Your task to perform on an android device: toggle sleep mode Image 0: 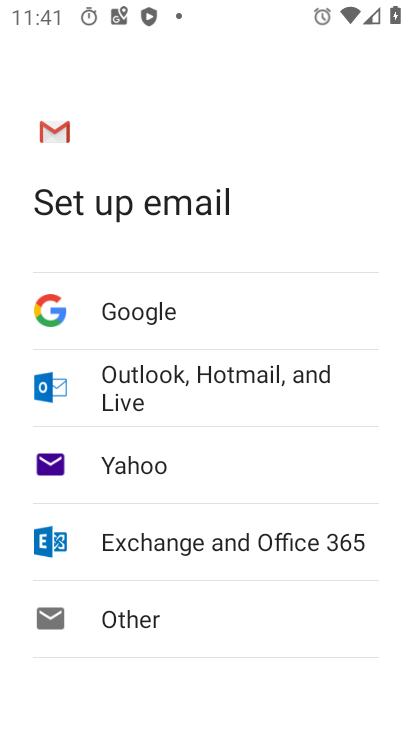
Step 0: press home button
Your task to perform on an android device: toggle sleep mode Image 1: 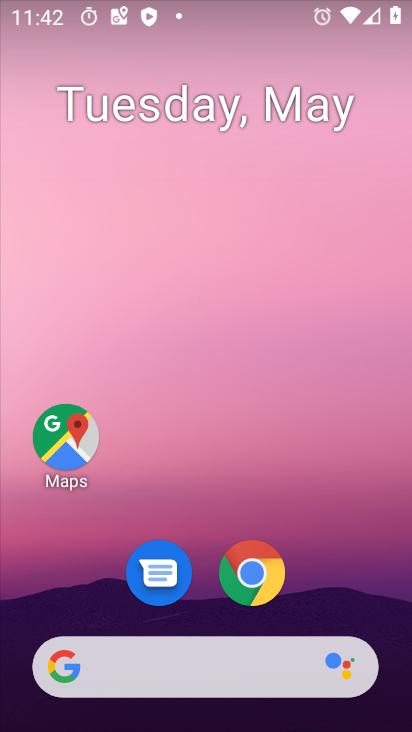
Step 1: drag from (236, 697) to (288, 254)
Your task to perform on an android device: toggle sleep mode Image 2: 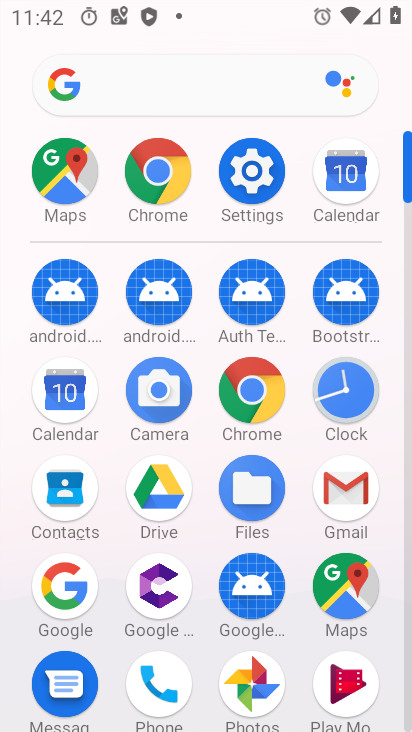
Step 2: click (241, 198)
Your task to perform on an android device: toggle sleep mode Image 3: 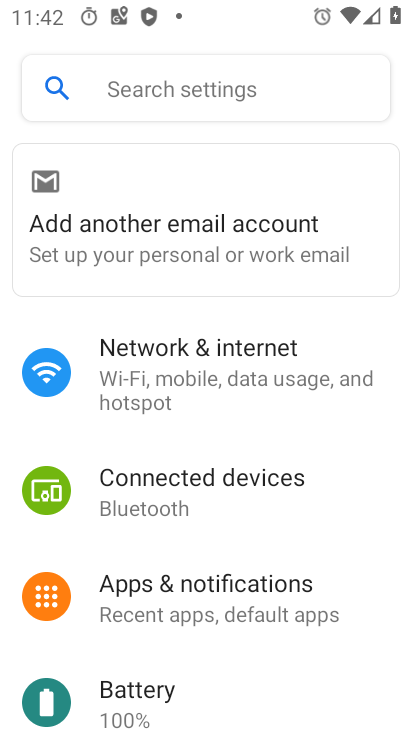
Step 3: click (161, 89)
Your task to perform on an android device: toggle sleep mode Image 4: 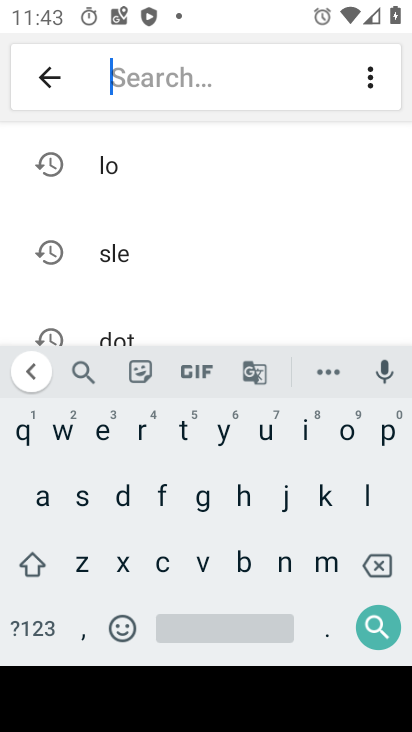
Step 4: click (73, 495)
Your task to perform on an android device: toggle sleep mode Image 5: 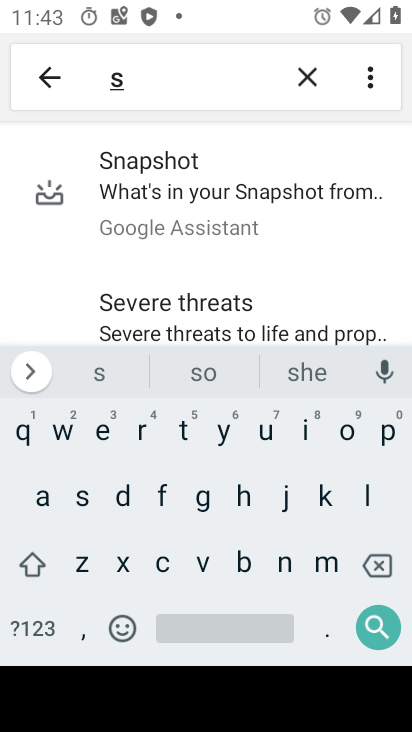
Step 5: click (365, 496)
Your task to perform on an android device: toggle sleep mode Image 6: 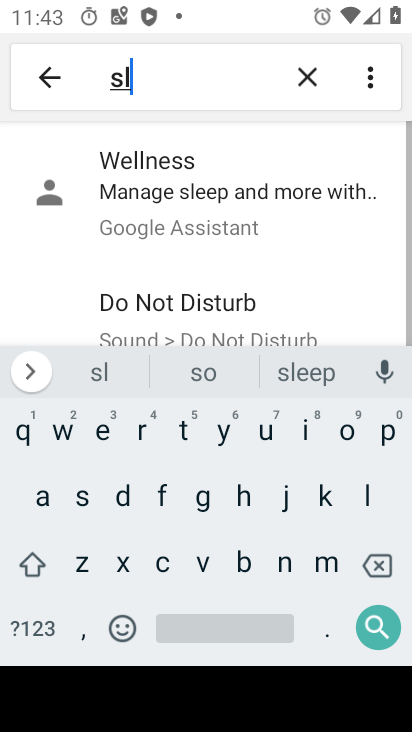
Step 6: click (109, 431)
Your task to perform on an android device: toggle sleep mode Image 7: 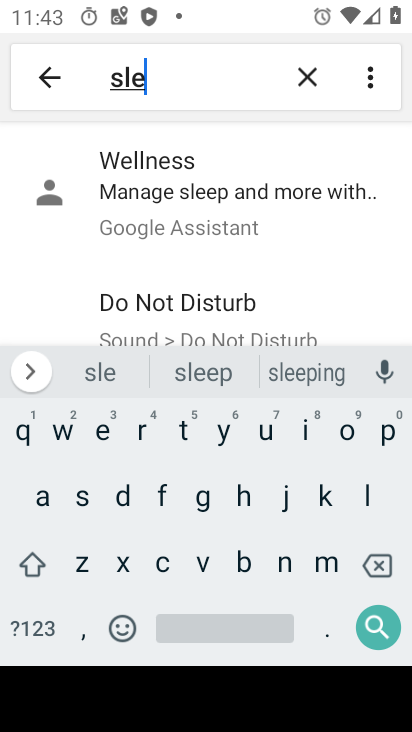
Step 7: click (199, 189)
Your task to perform on an android device: toggle sleep mode Image 8: 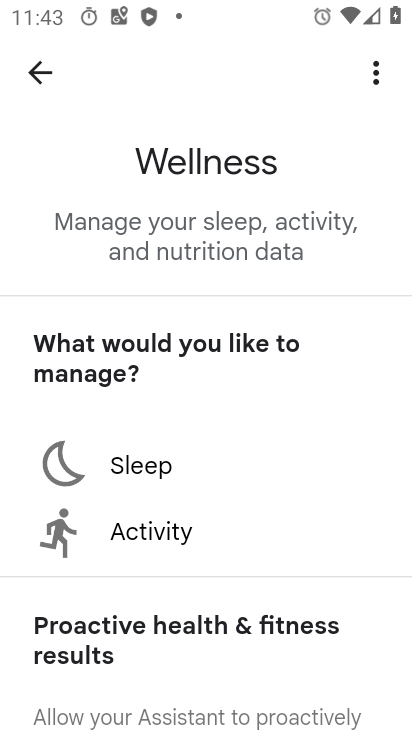
Step 8: click (135, 477)
Your task to perform on an android device: toggle sleep mode Image 9: 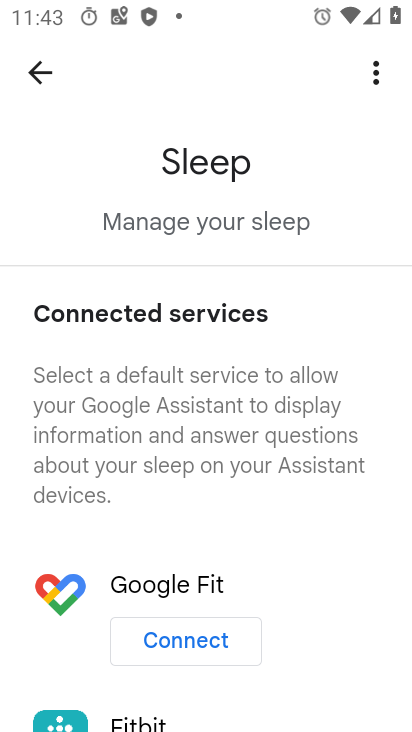
Step 9: task complete